Your task to perform on an android device: stop showing notifications on the lock screen Image 0: 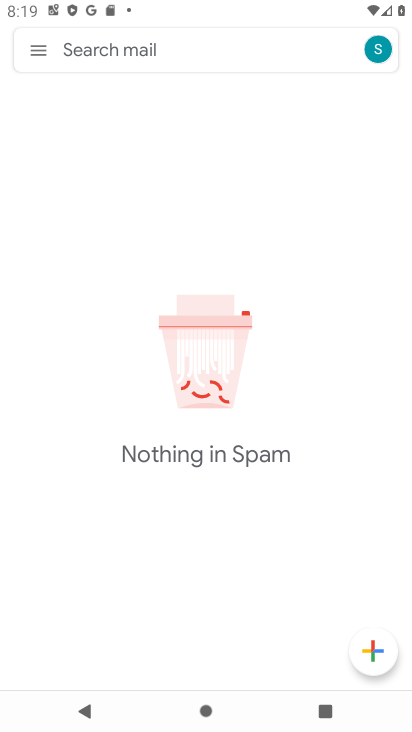
Step 0: press home button
Your task to perform on an android device: stop showing notifications on the lock screen Image 1: 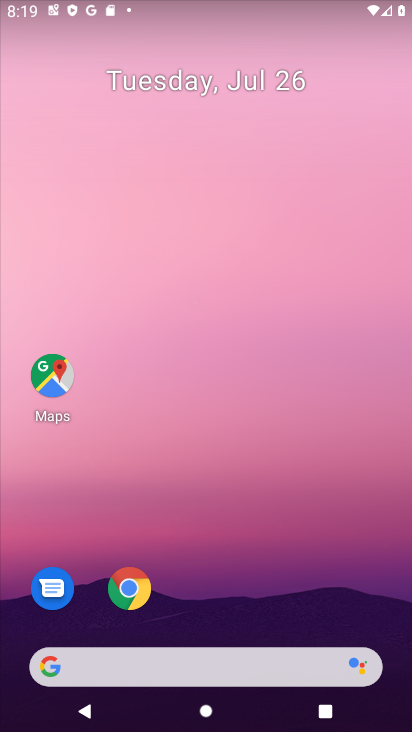
Step 1: drag from (208, 561) to (260, 23)
Your task to perform on an android device: stop showing notifications on the lock screen Image 2: 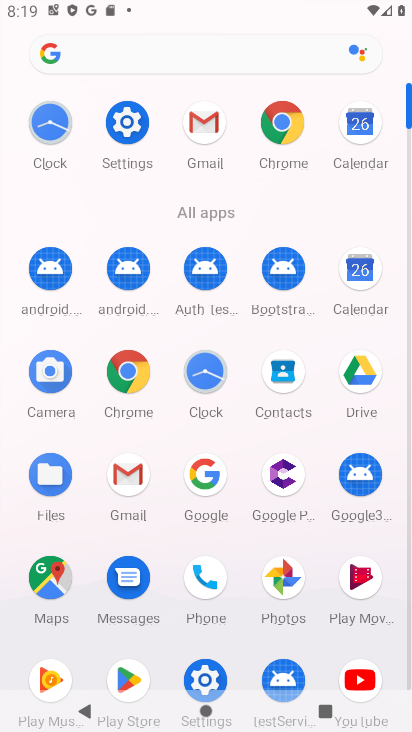
Step 2: click (128, 118)
Your task to perform on an android device: stop showing notifications on the lock screen Image 3: 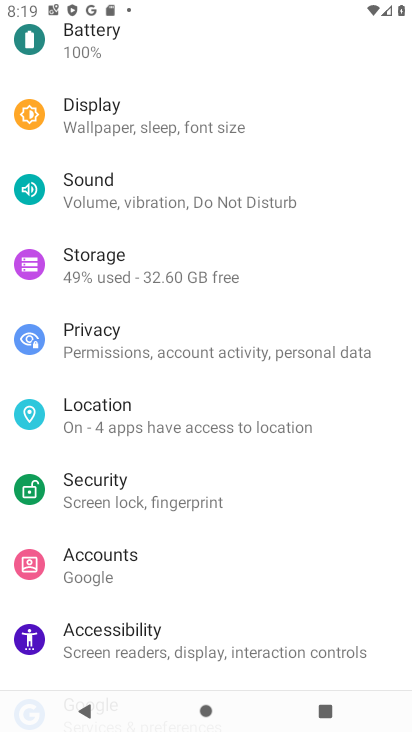
Step 3: drag from (155, 461) to (154, 36)
Your task to perform on an android device: stop showing notifications on the lock screen Image 4: 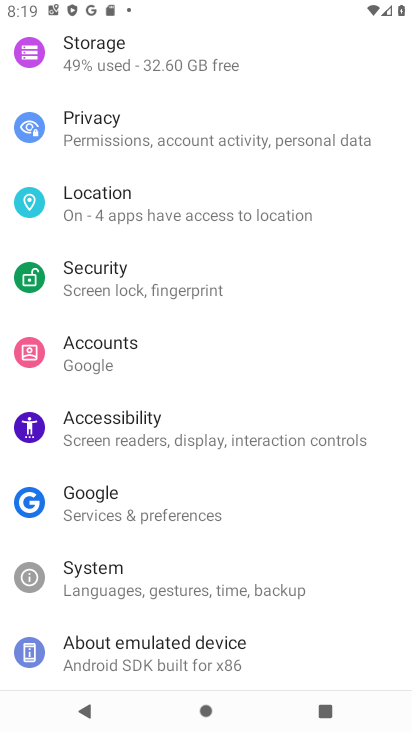
Step 4: drag from (101, 172) to (107, 669)
Your task to perform on an android device: stop showing notifications on the lock screen Image 5: 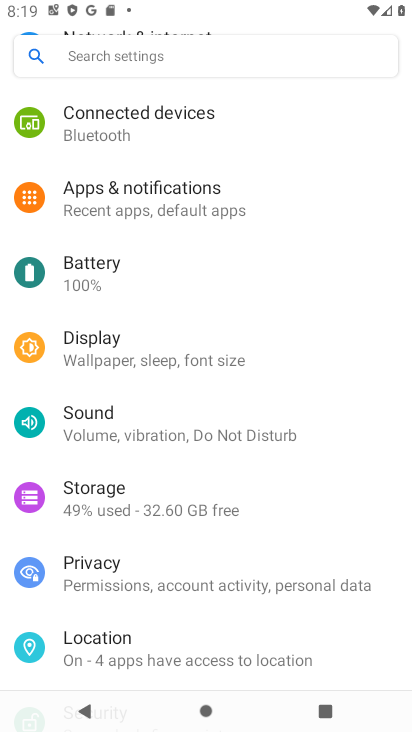
Step 5: click (131, 211)
Your task to perform on an android device: stop showing notifications on the lock screen Image 6: 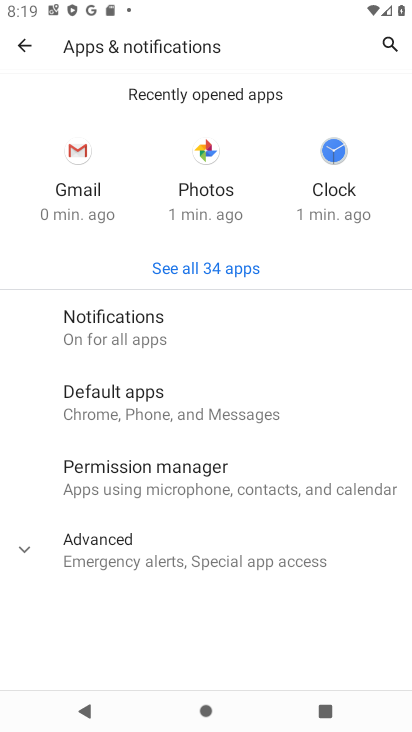
Step 6: click (128, 332)
Your task to perform on an android device: stop showing notifications on the lock screen Image 7: 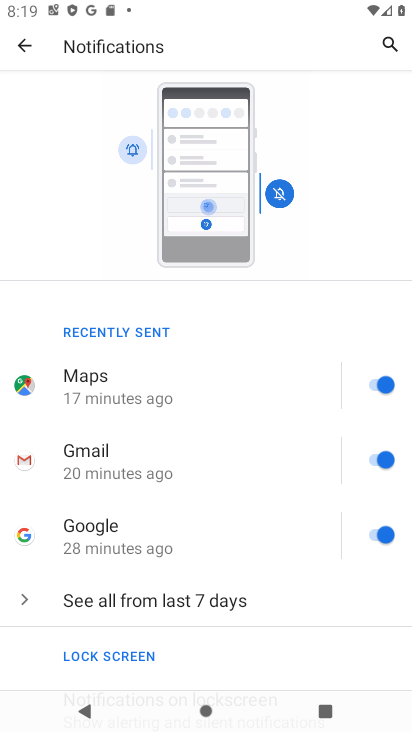
Step 7: drag from (187, 660) to (210, 308)
Your task to perform on an android device: stop showing notifications on the lock screen Image 8: 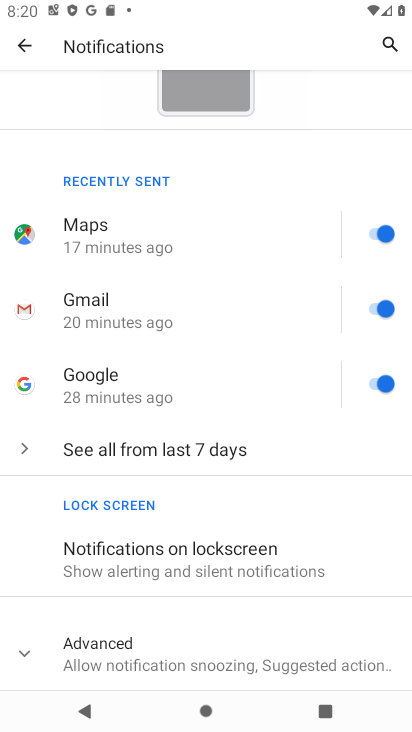
Step 8: click (208, 570)
Your task to perform on an android device: stop showing notifications on the lock screen Image 9: 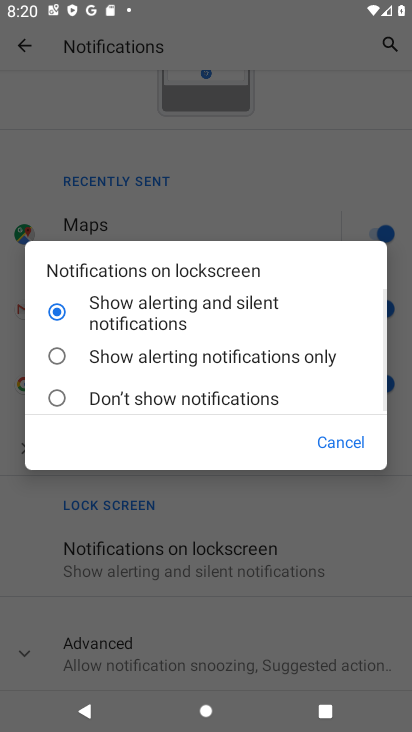
Step 9: click (57, 396)
Your task to perform on an android device: stop showing notifications on the lock screen Image 10: 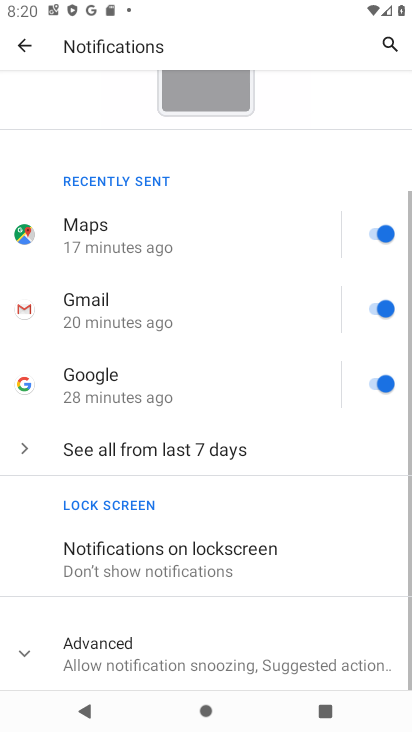
Step 10: task complete